Your task to perform on an android device: turn on javascript in the chrome app Image 0: 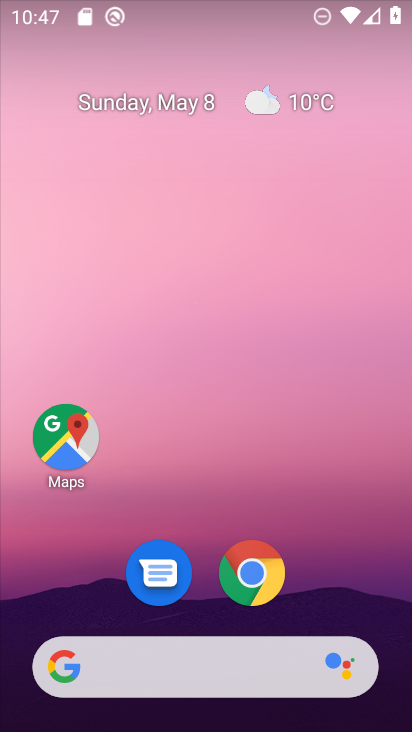
Step 0: click (275, 571)
Your task to perform on an android device: turn on javascript in the chrome app Image 1: 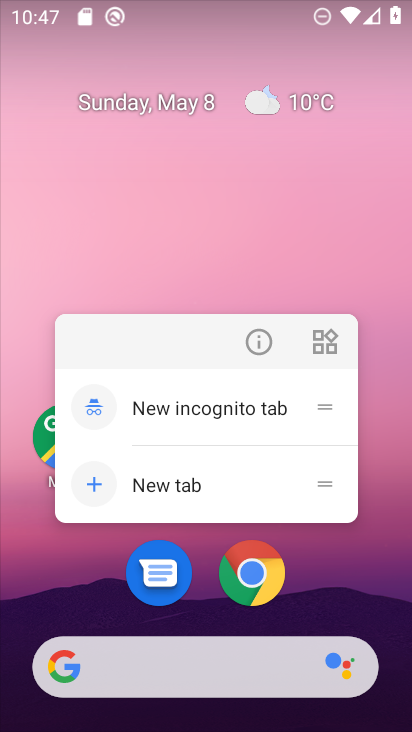
Step 1: click (260, 571)
Your task to perform on an android device: turn on javascript in the chrome app Image 2: 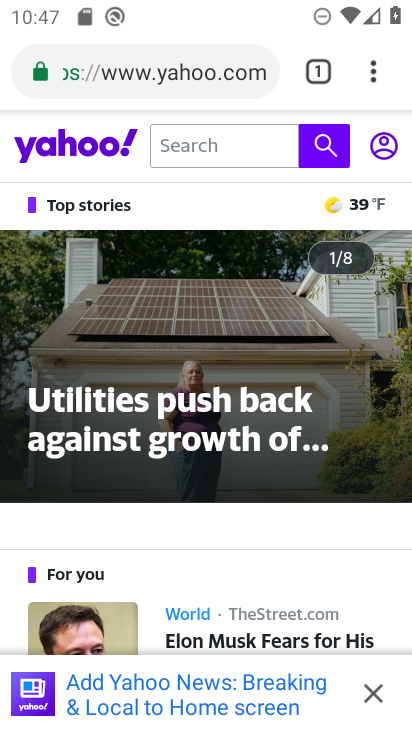
Step 2: click (375, 67)
Your task to perform on an android device: turn on javascript in the chrome app Image 3: 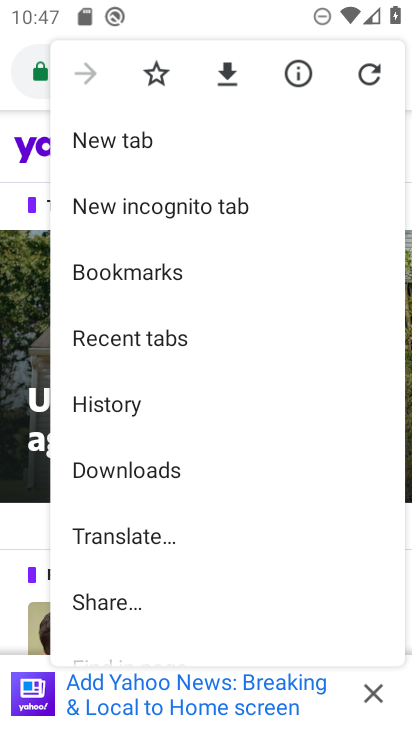
Step 3: drag from (241, 627) to (237, 366)
Your task to perform on an android device: turn on javascript in the chrome app Image 4: 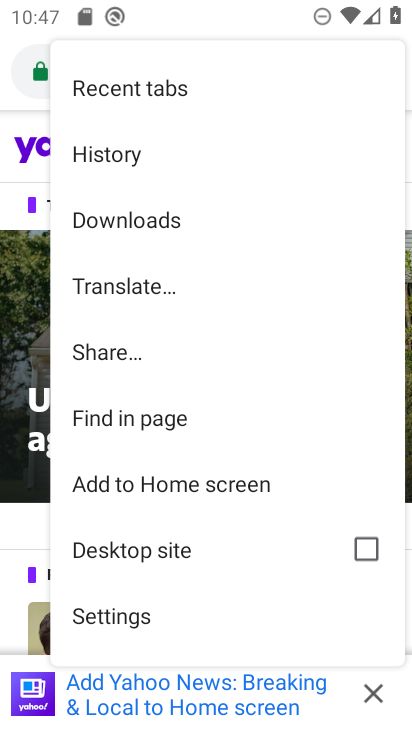
Step 4: click (154, 612)
Your task to perform on an android device: turn on javascript in the chrome app Image 5: 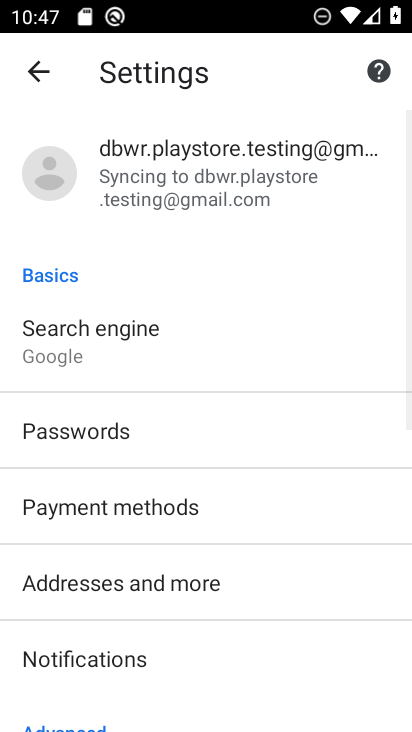
Step 5: drag from (154, 612) to (107, 56)
Your task to perform on an android device: turn on javascript in the chrome app Image 6: 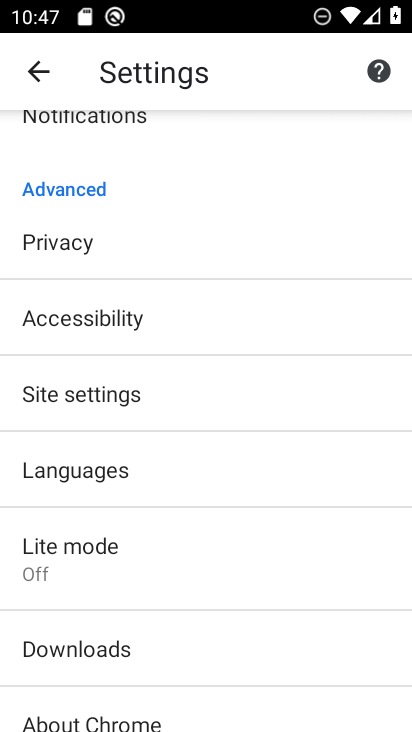
Step 6: click (139, 389)
Your task to perform on an android device: turn on javascript in the chrome app Image 7: 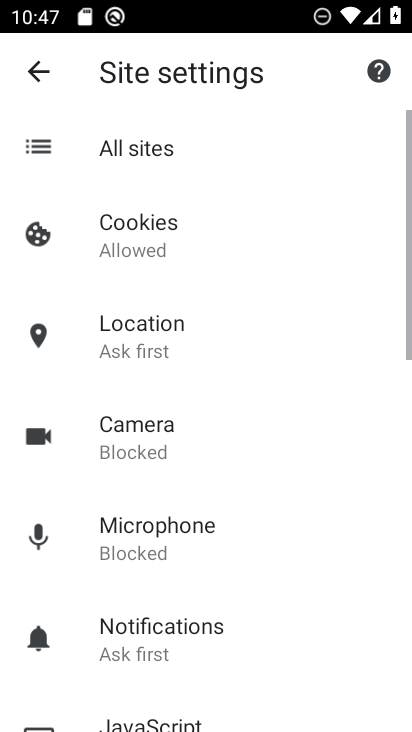
Step 7: drag from (139, 389) to (130, 226)
Your task to perform on an android device: turn on javascript in the chrome app Image 8: 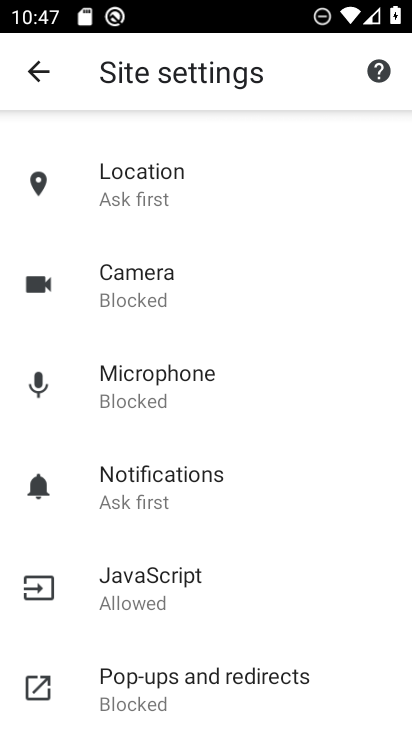
Step 8: click (135, 562)
Your task to perform on an android device: turn on javascript in the chrome app Image 9: 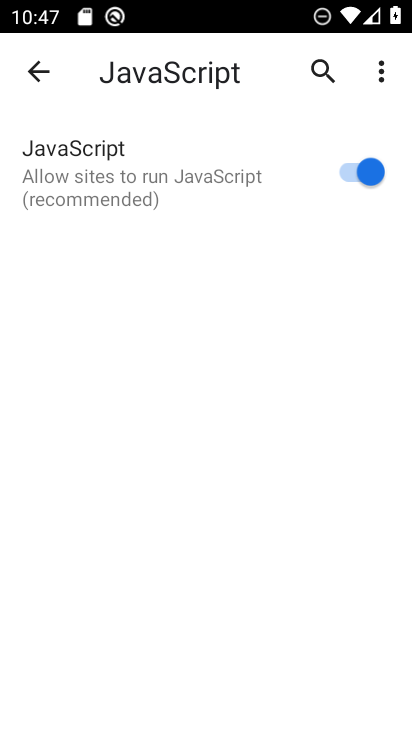
Step 9: task complete